Your task to perform on an android device: Open the calendar and show me this week's events? Image 0: 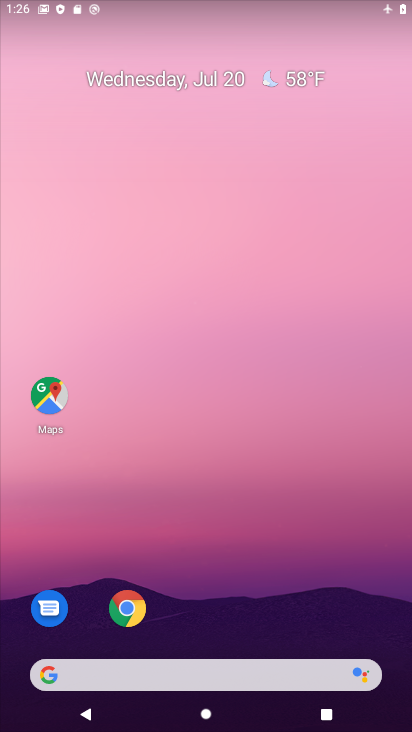
Step 0: drag from (237, 625) to (198, 189)
Your task to perform on an android device: Open the calendar and show me this week's events? Image 1: 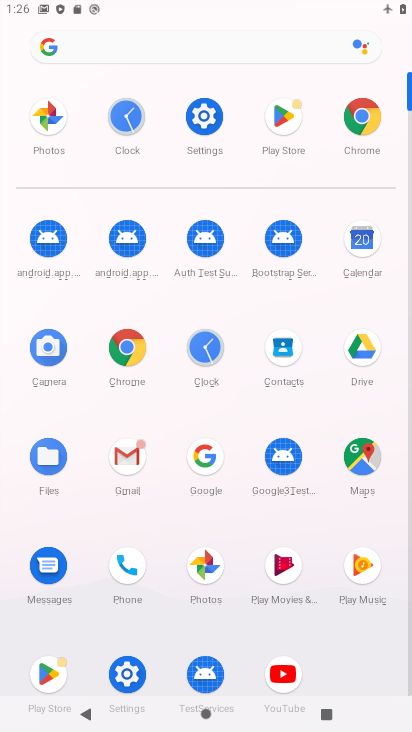
Step 1: click (366, 243)
Your task to perform on an android device: Open the calendar and show me this week's events? Image 2: 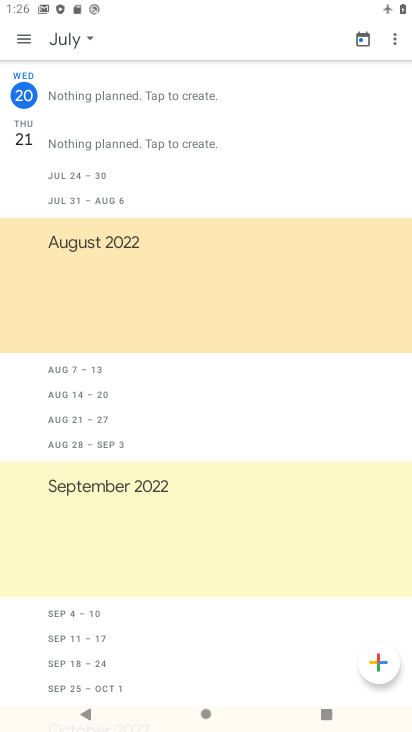
Step 2: click (84, 37)
Your task to perform on an android device: Open the calendar and show me this week's events? Image 3: 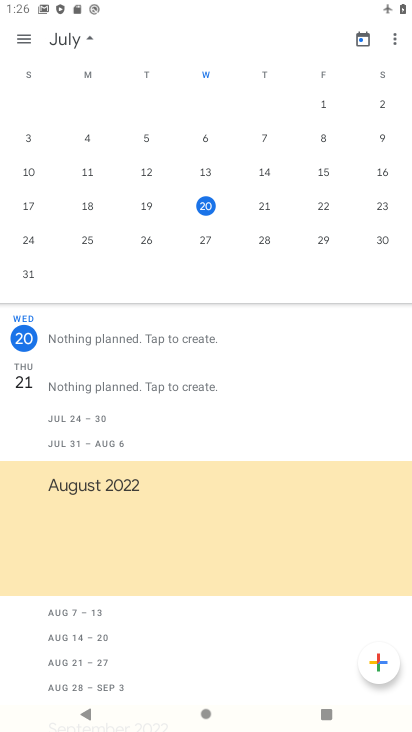
Step 3: click (83, 239)
Your task to perform on an android device: Open the calendar and show me this week's events? Image 4: 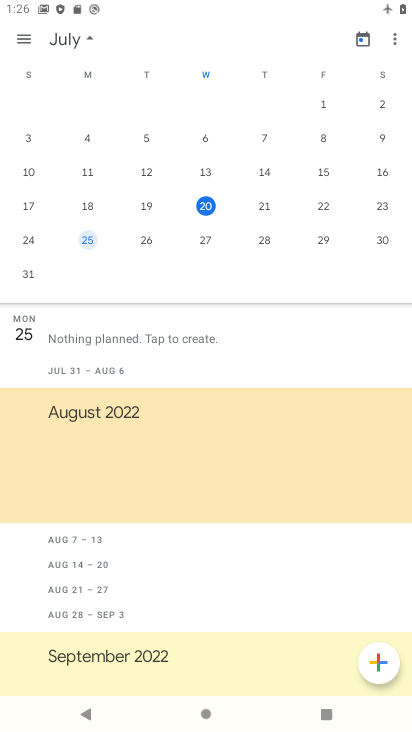
Step 4: click (88, 239)
Your task to perform on an android device: Open the calendar and show me this week's events? Image 5: 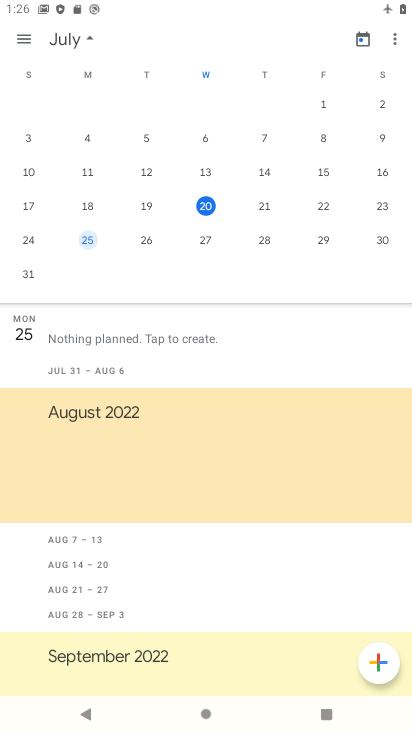
Step 5: click (90, 238)
Your task to perform on an android device: Open the calendar and show me this week's events? Image 6: 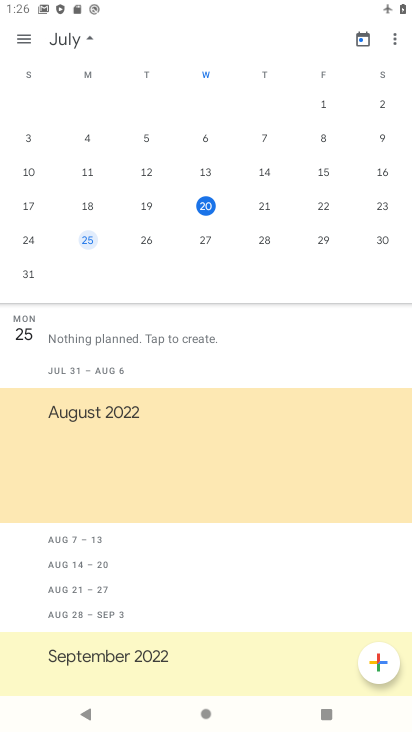
Step 6: click (90, 238)
Your task to perform on an android device: Open the calendar and show me this week's events? Image 7: 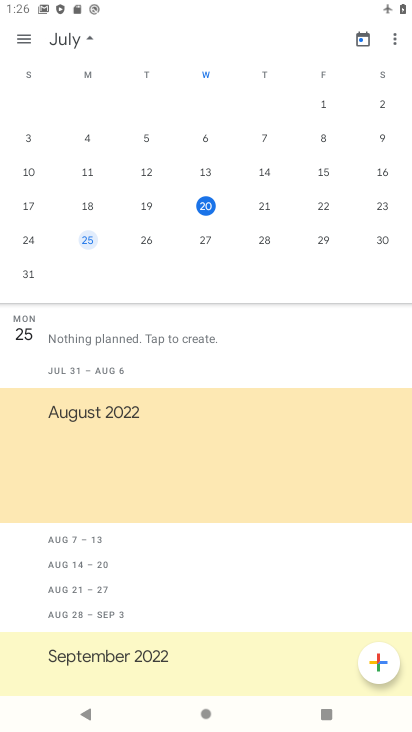
Step 7: click (90, 238)
Your task to perform on an android device: Open the calendar and show me this week's events? Image 8: 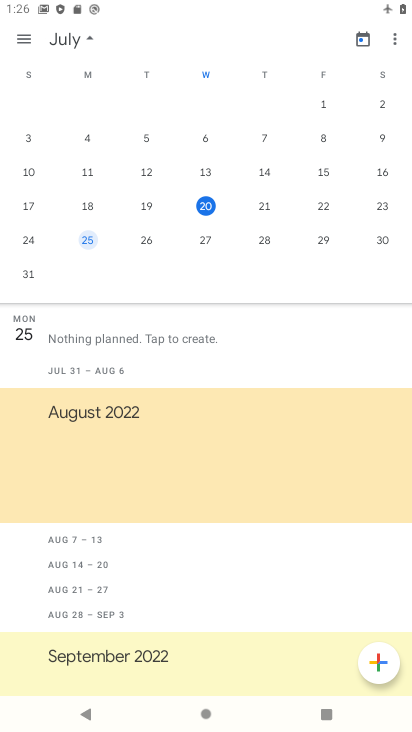
Step 8: click (90, 238)
Your task to perform on an android device: Open the calendar and show me this week's events? Image 9: 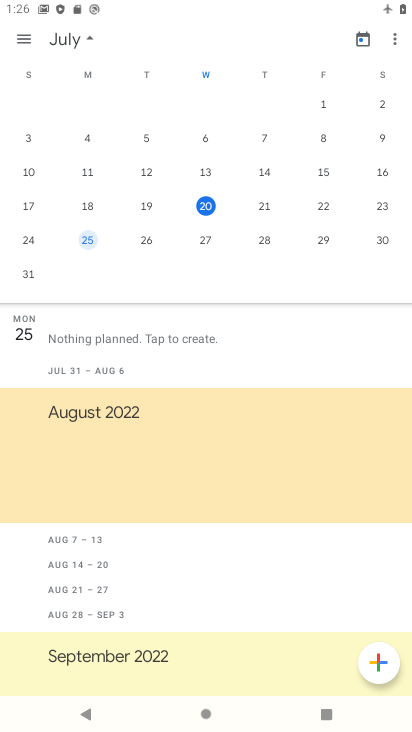
Step 9: click (24, 30)
Your task to perform on an android device: Open the calendar and show me this week's events? Image 10: 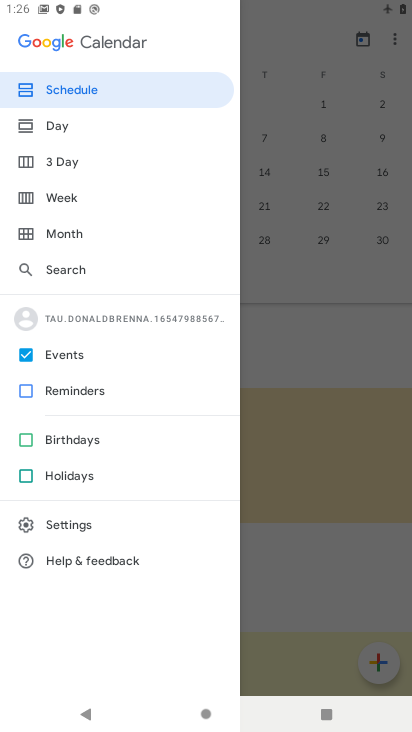
Step 10: click (63, 197)
Your task to perform on an android device: Open the calendar and show me this week's events? Image 11: 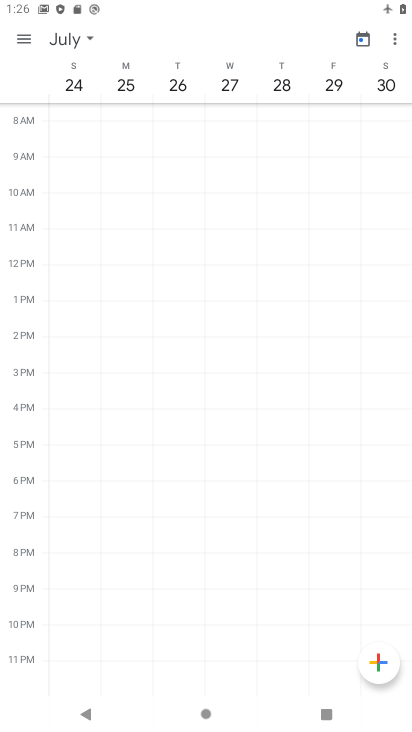
Step 11: task complete